Your task to perform on an android device: Set the phone to "Do not disturb". Image 0: 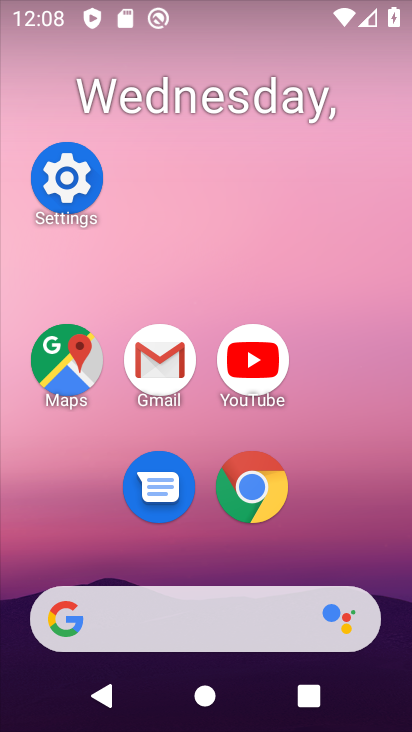
Step 0: click (70, 163)
Your task to perform on an android device: Set the phone to "Do not disturb". Image 1: 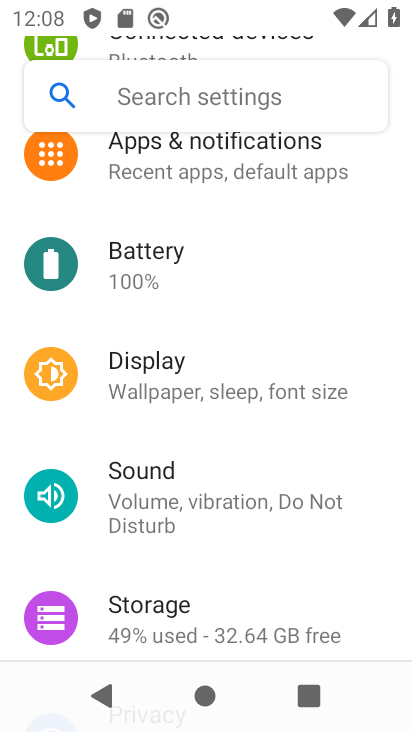
Step 1: click (233, 494)
Your task to perform on an android device: Set the phone to "Do not disturb". Image 2: 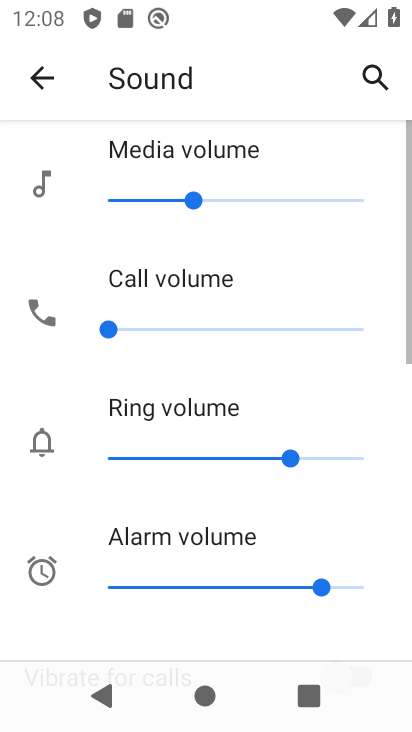
Step 2: drag from (233, 494) to (275, 0)
Your task to perform on an android device: Set the phone to "Do not disturb". Image 3: 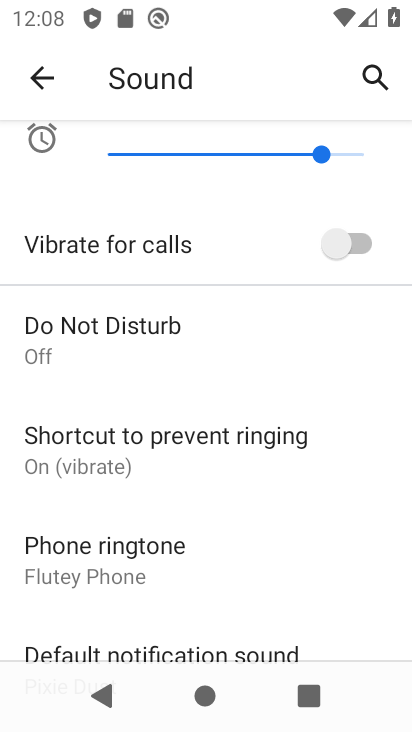
Step 3: click (221, 328)
Your task to perform on an android device: Set the phone to "Do not disturb". Image 4: 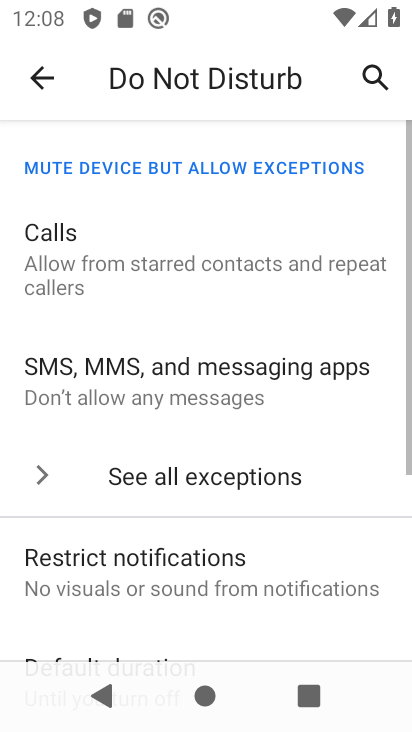
Step 4: drag from (227, 544) to (194, 13)
Your task to perform on an android device: Set the phone to "Do not disturb". Image 5: 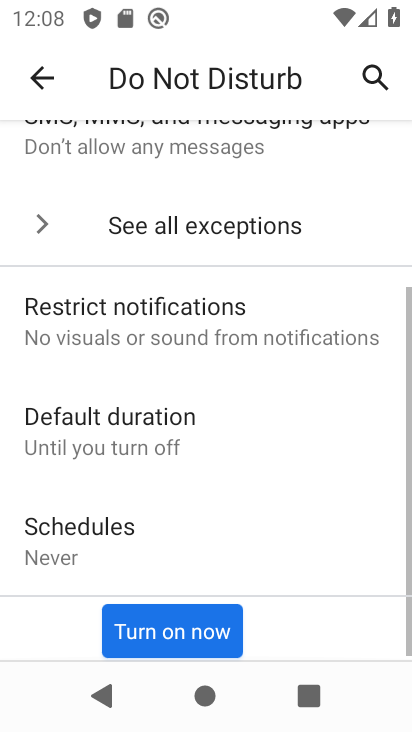
Step 5: click (188, 645)
Your task to perform on an android device: Set the phone to "Do not disturb". Image 6: 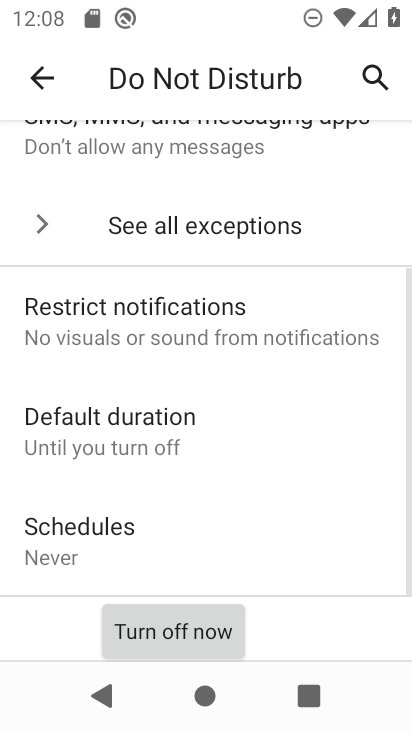
Step 6: task complete